Your task to perform on an android device: turn on priority inbox in the gmail app Image 0: 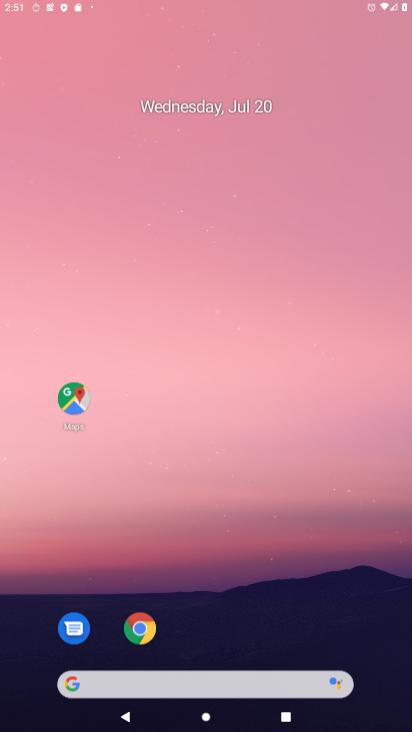
Step 0: press home button
Your task to perform on an android device: turn on priority inbox in the gmail app Image 1: 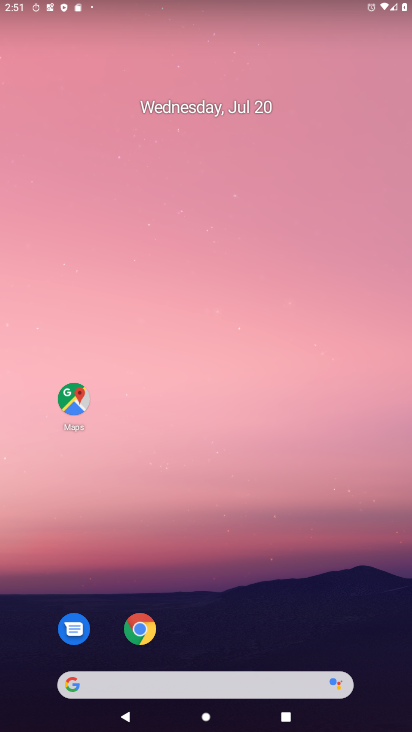
Step 1: drag from (217, 651) to (246, 93)
Your task to perform on an android device: turn on priority inbox in the gmail app Image 2: 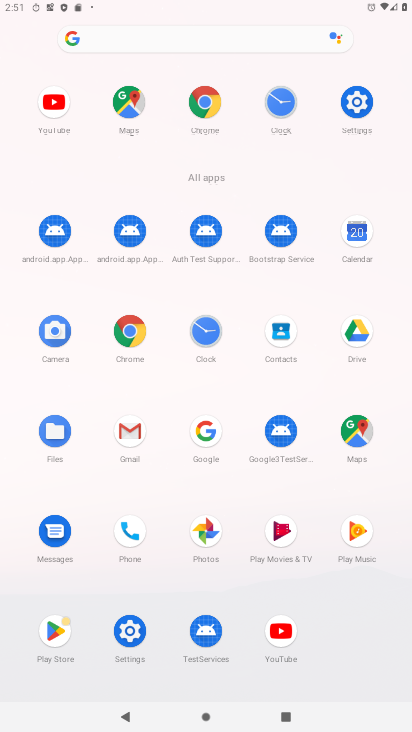
Step 2: click (130, 423)
Your task to perform on an android device: turn on priority inbox in the gmail app Image 3: 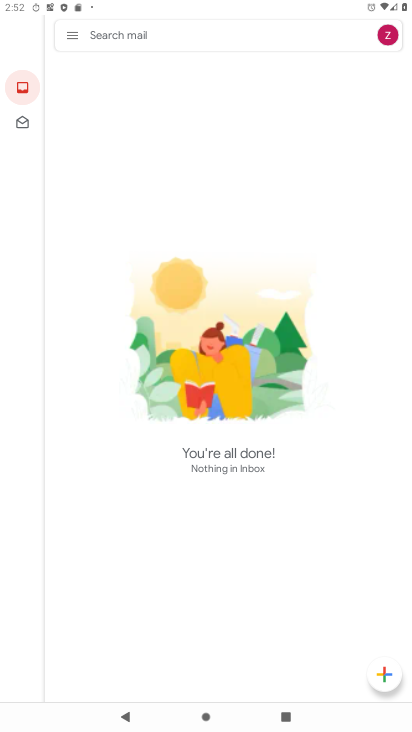
Step 3: click (72, 34)
Your task to perform on an android device: turn on priority inbox in the gmail app Image 4: 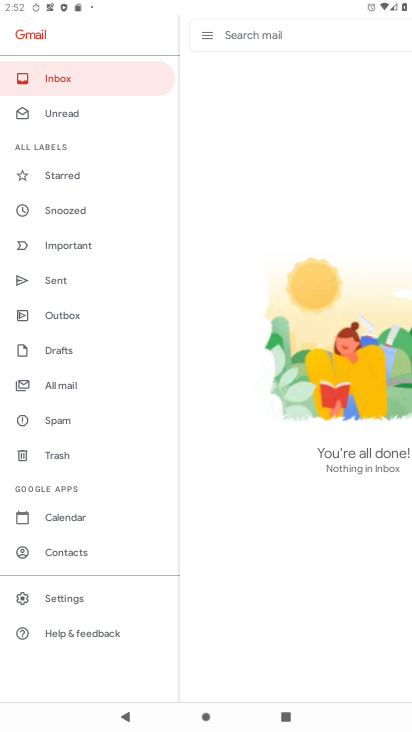
Step 4: click (89, 594)
Your task to perform on an android device: turn on priority inbox in the gmail app Image 5: 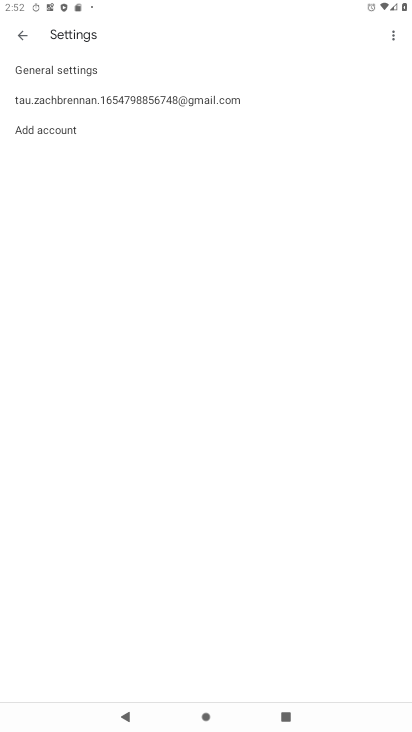
Step 5: click (107, 95)
Your task to perform on an android device: turn on priority inbox in the gmail app Image 6: 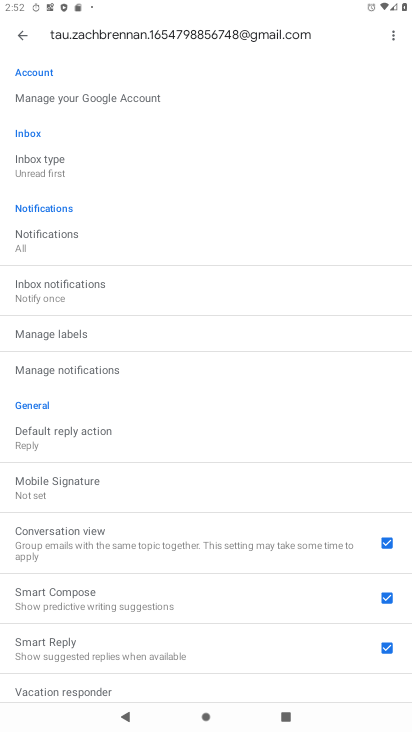
Step 6: click (68, 161)
Your task to perform on an android device: turn on priority inbox in the gmail app Image 7: 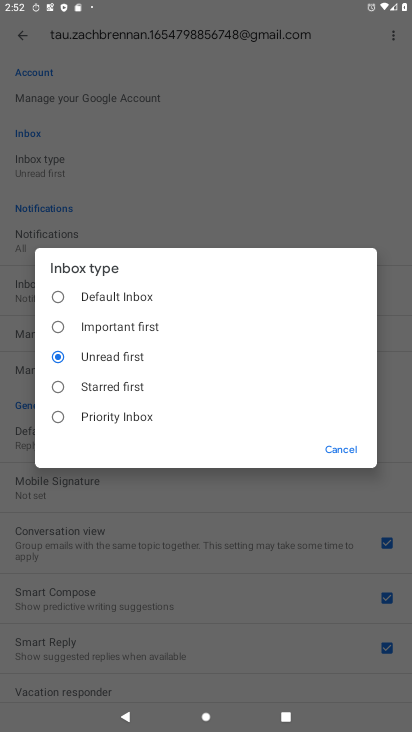
Step 7: click (59, 408)
Your task to perform on an android device: turn on priority inbox in the gmail app Image 8: 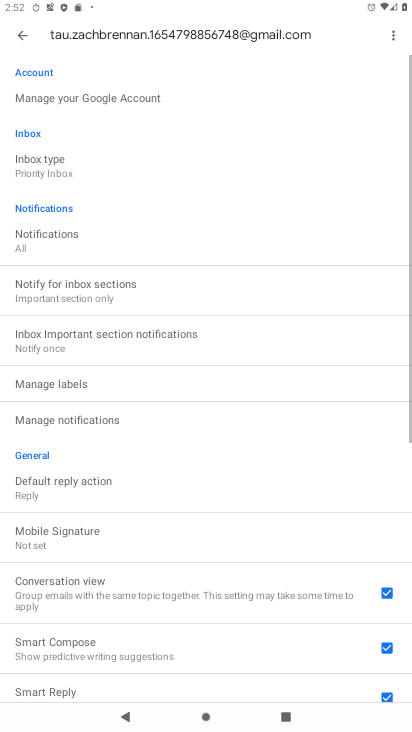
Step 8: task complete